Your task to perform on an android device: Go to accessibility settings Image 0: 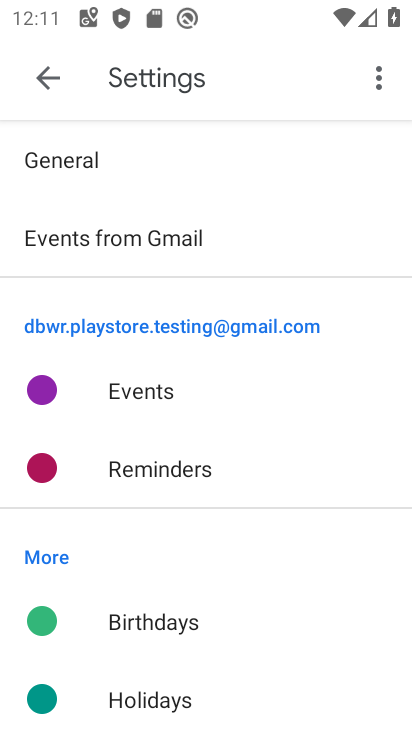
Step 0: press home button
Your task to perform on an android device: Go to accessibility settings Image 1: 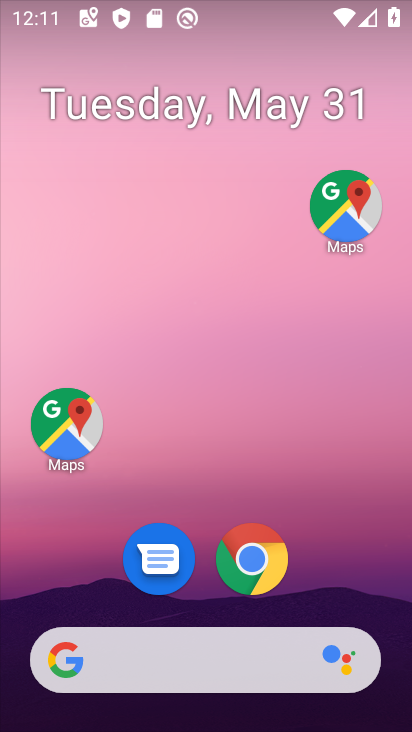
Step 1: drag from (301, 551) to (282, 132)
Your task to perform on an android device: Go to accessibility settings Image 2: 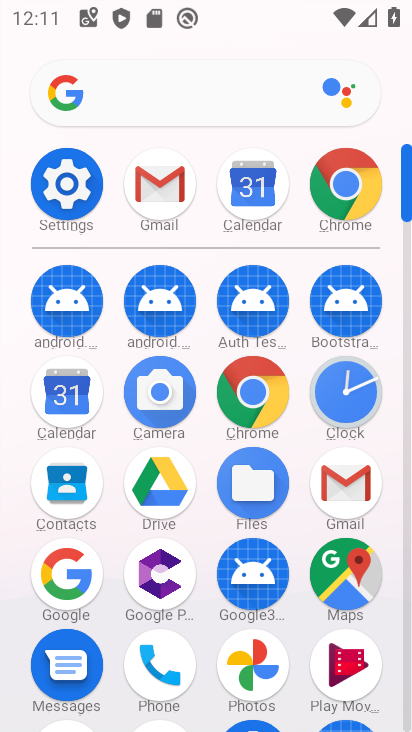
Step 2: click (70, 183)
Your task to perform on an android device: Go to accessibility settings Image 3: 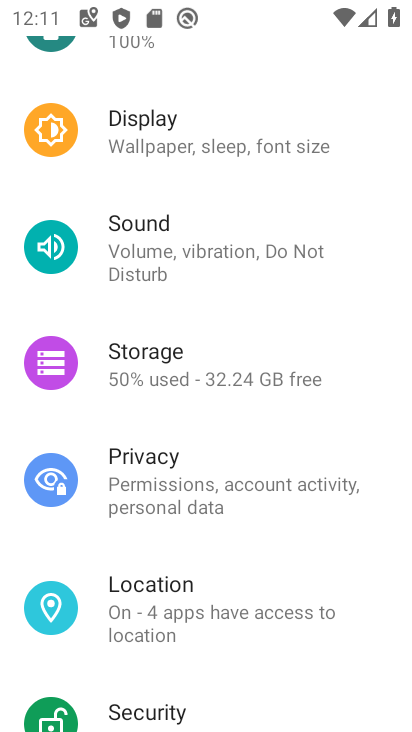
Step 3: drag from (266, 616) to (280, 187)
Your task to perform on an android device: Go to accessibility settings Image 4: 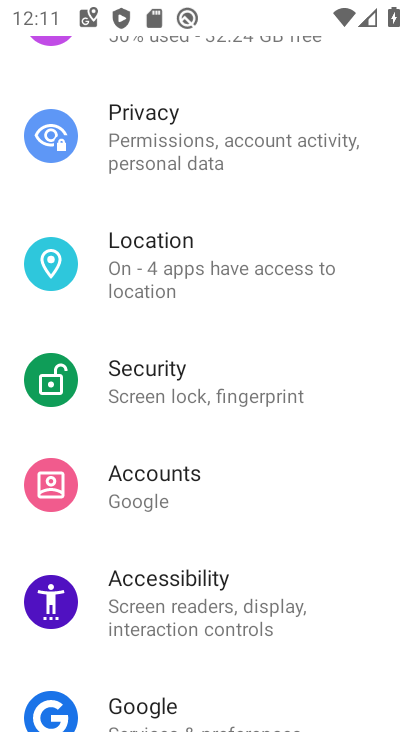
Step 4: click (204, 584)
Your task to perform on an android device: Go to accessibility settings Image 5: 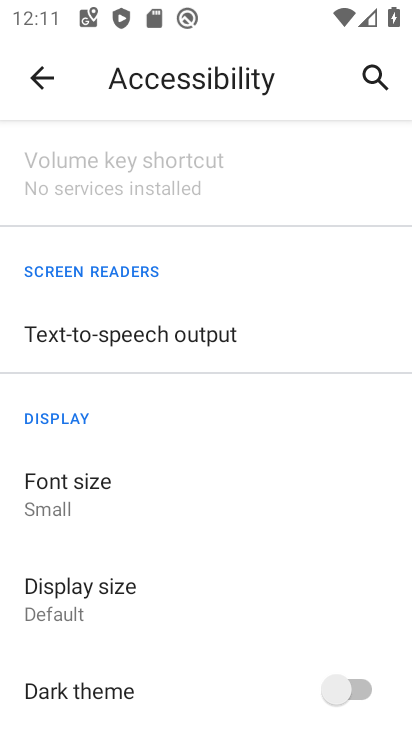
Step 5: task complete